Your task to perform on an android device: open a bookmark in the chrome app Image 0: 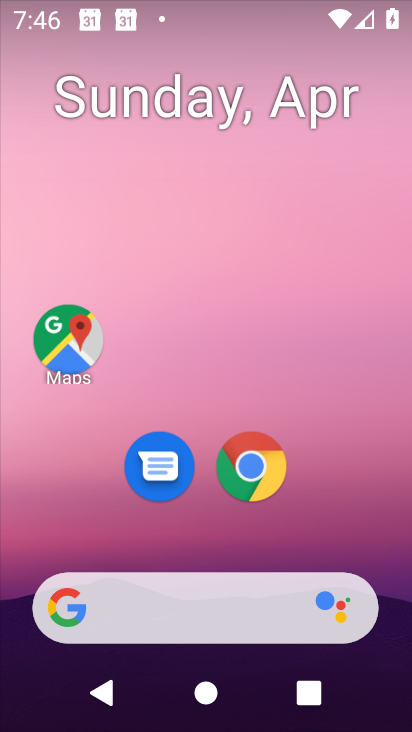
Step 0: click (263, 462)
Your task to perform on an android device: open a bookmark in the chrome app Image 1: 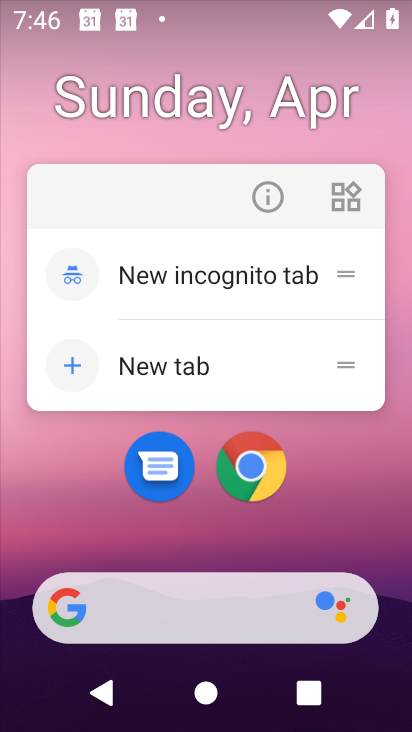
Step 1: click (263, 462)
Your task to perform on an android device: open a bookmark in the chrome app Image 2: 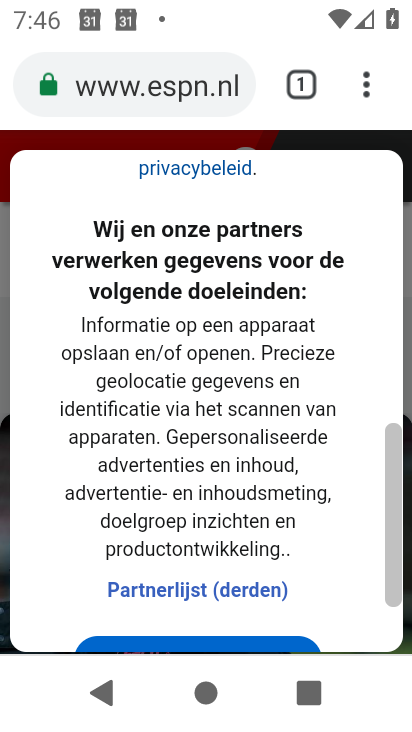
Step 2: click (364, 88)
Your task to perform on an android device: open a bookmark in the chrome app Image 3: 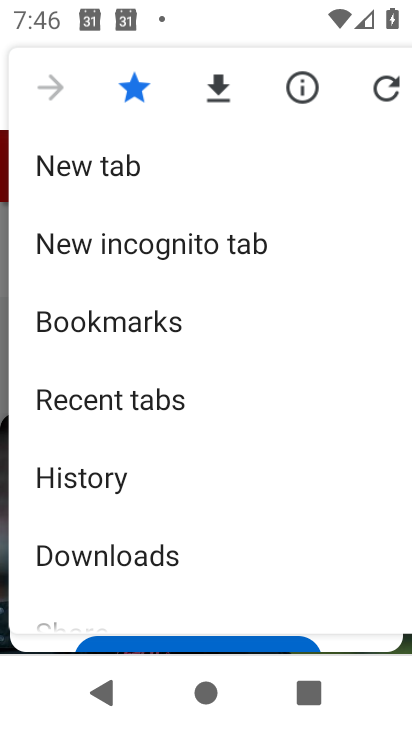
Step 3: click (128, 179)
Your task to perform on an android device: open a bookmark in the chrome app Image 4: 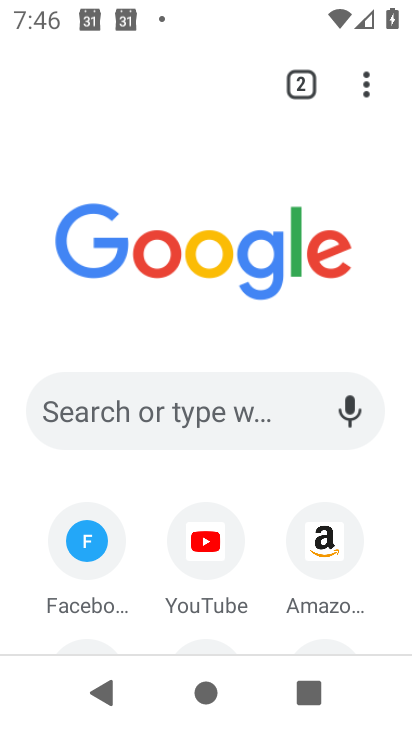
Step 4: click (344, 542)
Your task to perform on an android device: open a bookmark in the chrome app Image 5: 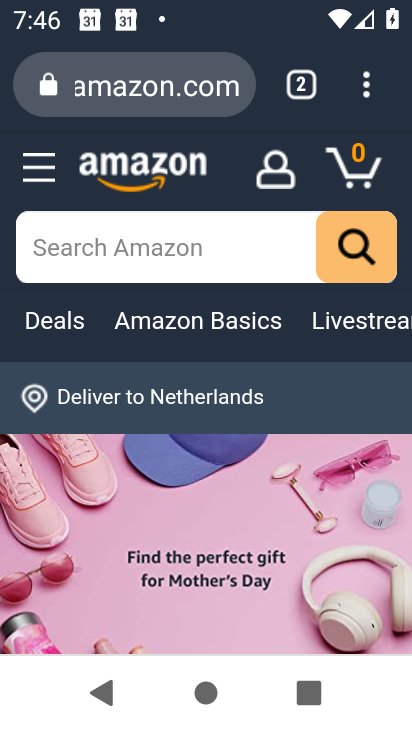
Step 5: task complete